Your task to perform on an android device: change the clock display to show seconds Image 0: 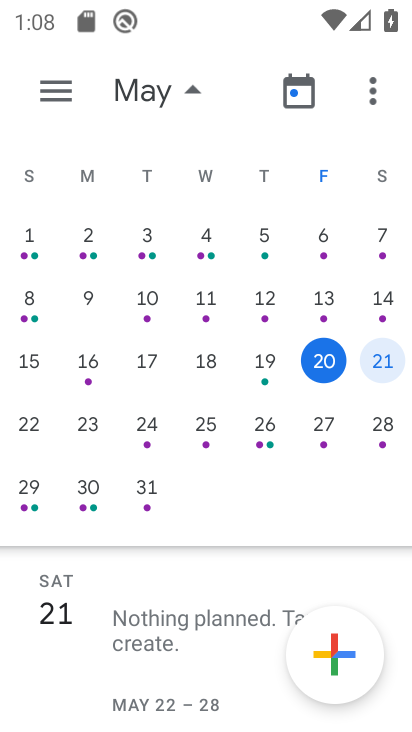
Step 0: press home button
Your task to perform on an android device: change the clock display to show seconds Image 1: 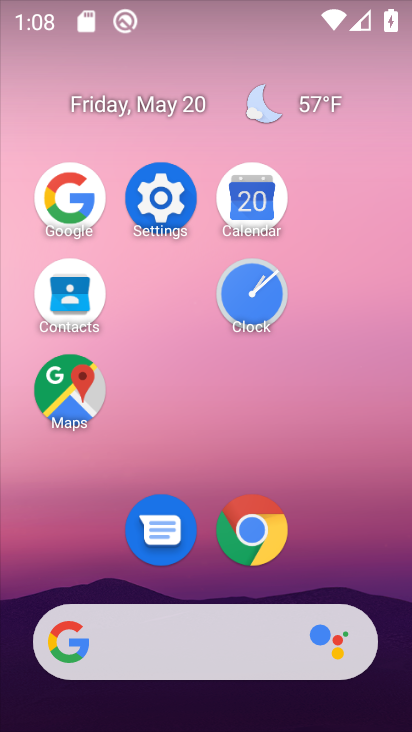
Step 1: click (254, 284)
Your task to perform on an android device: change the clock display to show seconds Image 2: 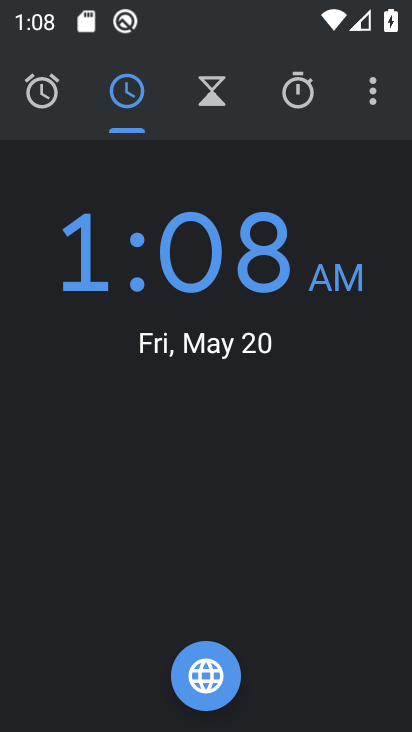
Step 2: click (372, 76)
Your task to perform on an android device: change the clock display to show seconds Image 3: 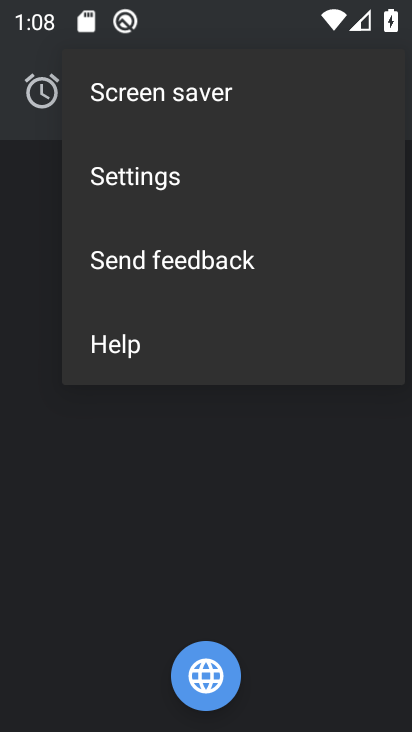
Step 3: click (223, 192)
Your task to perform on an android device: change the clock display to show seconds Image 4: 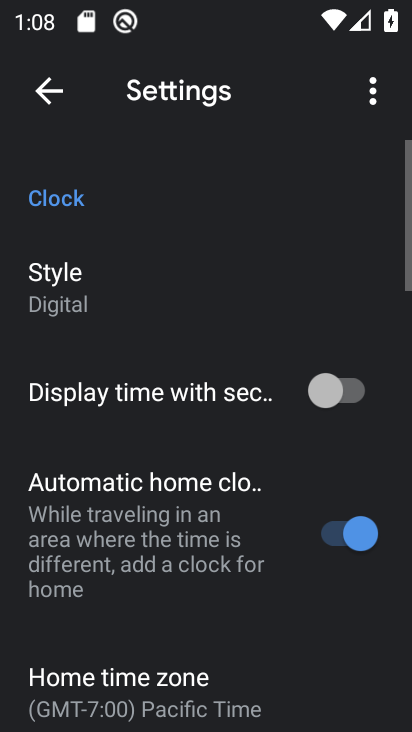
Step 4: click (356, 406)
Your task to perform on an android device: change the clock display to show seconds Image 5: 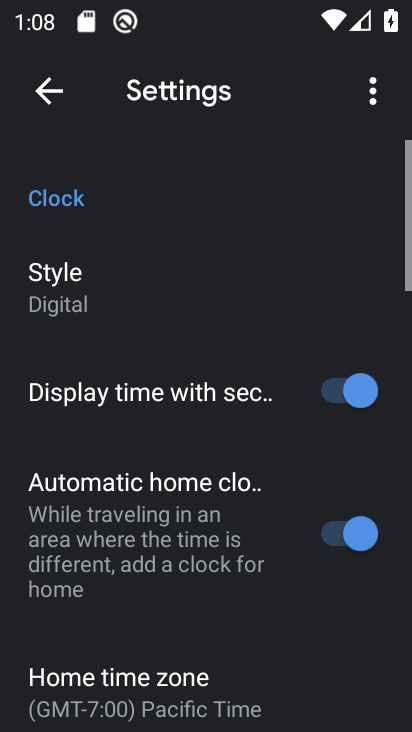
Step 5: task complete